Your task to perform on an android device: turn on location history Image 0: 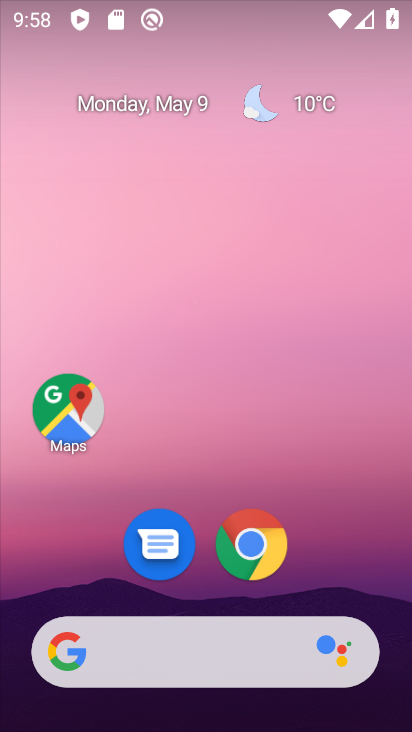
Step 0: drag from (386, 449) to (371, 341)
Your task to perform on an android device: turn on location history Image 1: 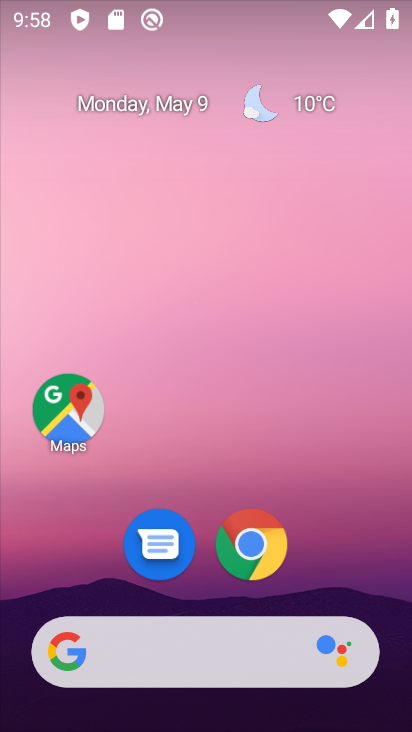
Step 1: drag from (399, 638) to (404, 169)
Your task to perform on an android device: turn on location history Image 2: 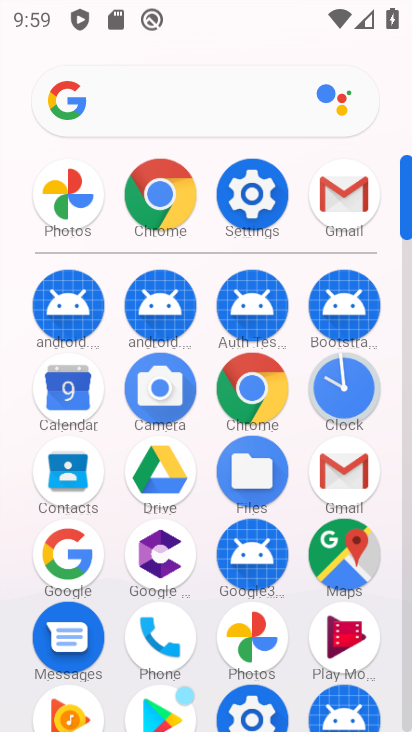
Step 2: click (259, 180)
Your task to perform on an android device: turn on location history Image 3: 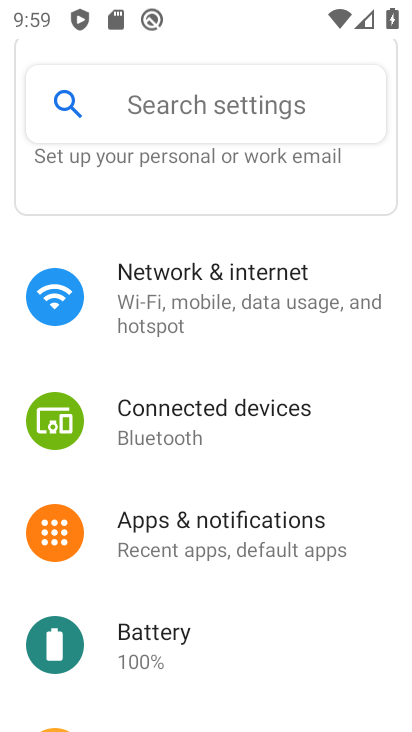
Step 3: drag from (271, 672) to (250, 320)
Your task to perform on an android device: turn on location history Image 4: 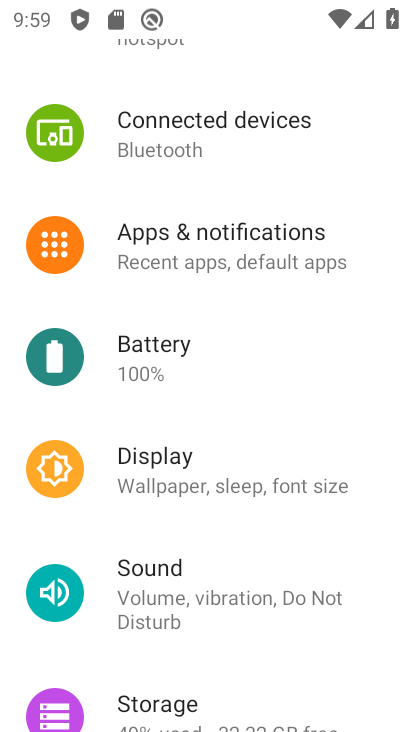
Step 4: drag from (325, 690) to (314, 386)
Your task to perform on an android device: turn on location history Image 5: 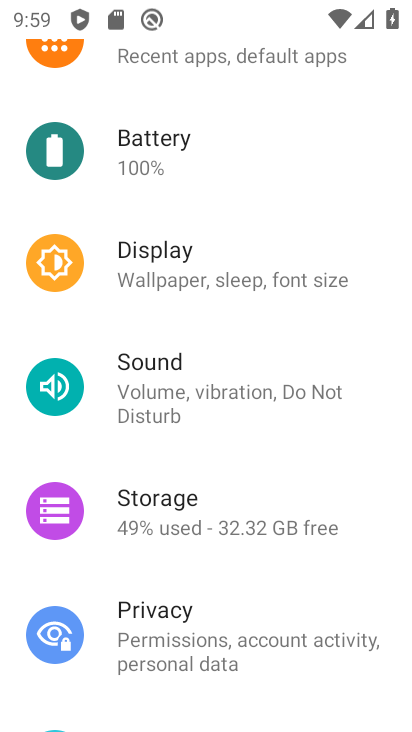
Step 5: drag from (353, 708) to (311, 342)
Your task to perform on an android device: turn on location history Image 6: 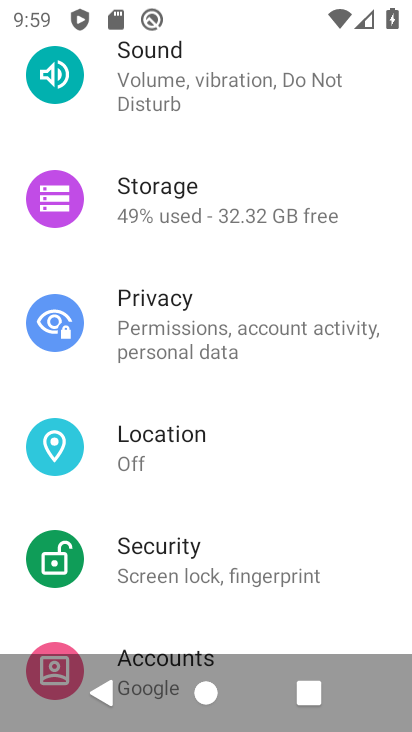
Step 6: drag from (366, 575) to (350, 363)
Your task to perform on an android device: turn on location history Image 7: 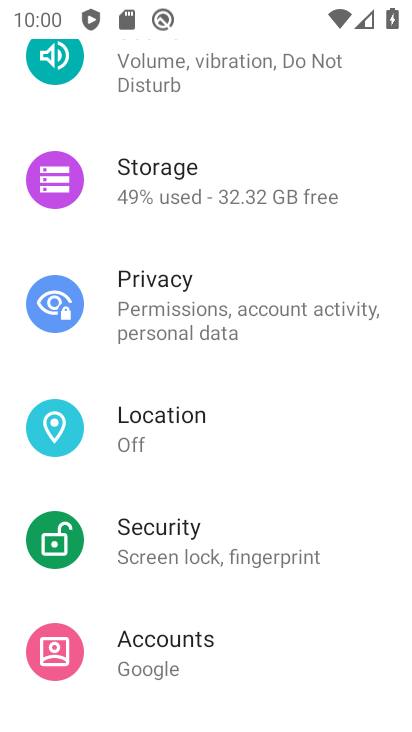
Step 7: click (150, 424)
Your task to perform on an android device: turn on location history Image 8: 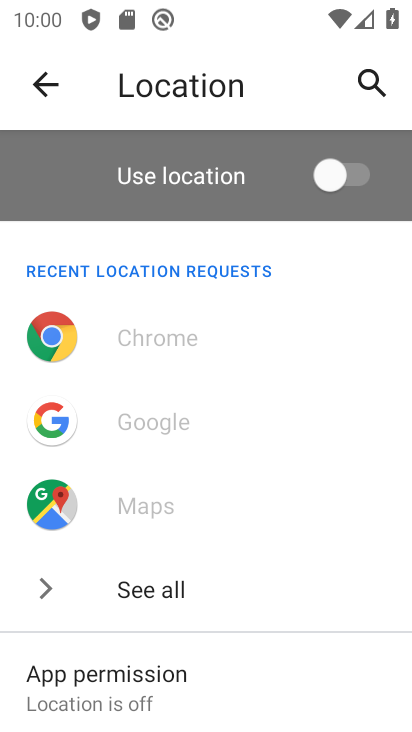
Step 8: click (354, 173)
Your task to perform on an android device: turn on location history Image 9: 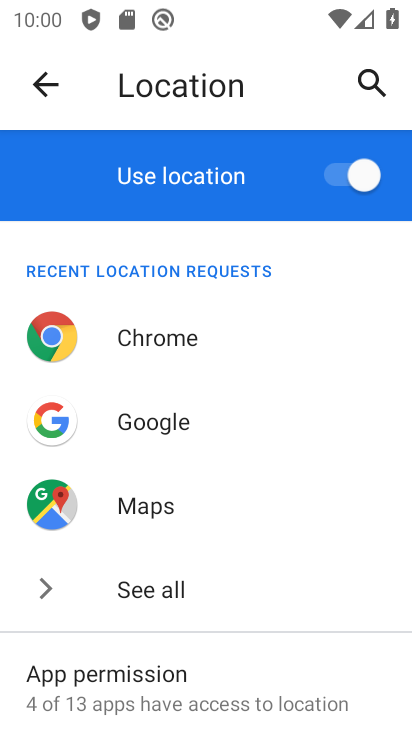
Step 9: task complete